Your task to perform on an android device: Go to network settings Image 0: 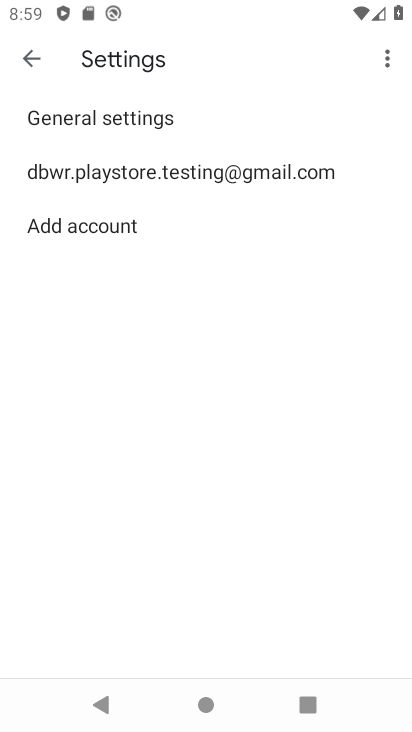
Step 0: press home button
Your task to perform on an android device: Go to network settings Image 1: 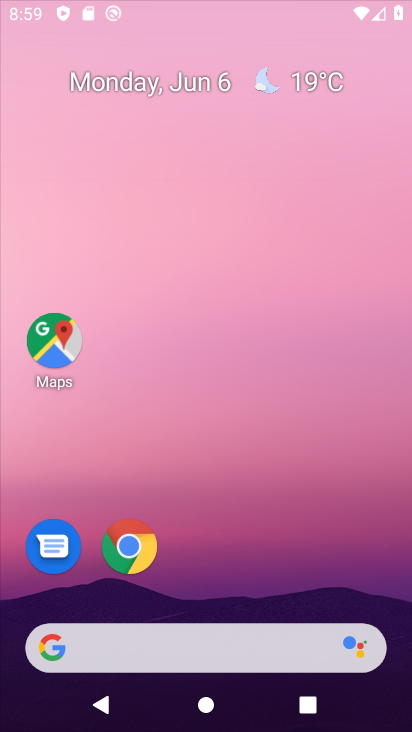
Step 1: drag from (186, 616) to (199, 203)
Your task to perform on an android device: Go to network settings Image 2: 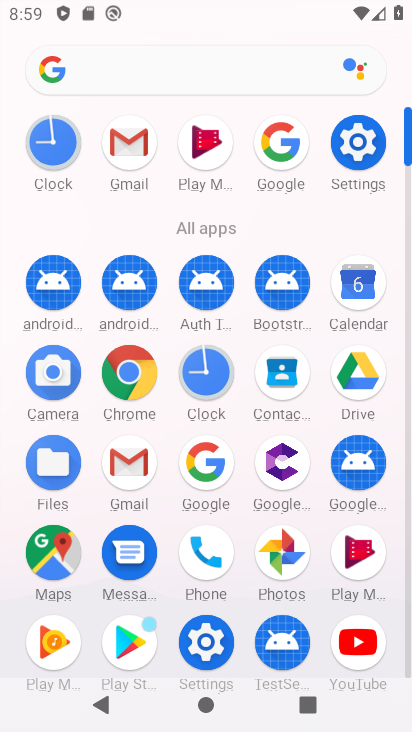
Step 2: click (355, 159)
Your task to perform on an android device: Go to network settings Image 3: 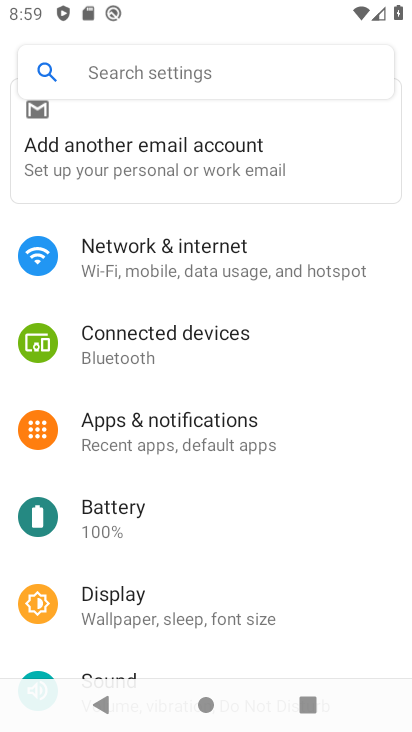
Step 3: click (212, 238)
Your task to perform on an android device: Go to network settings Image 4: 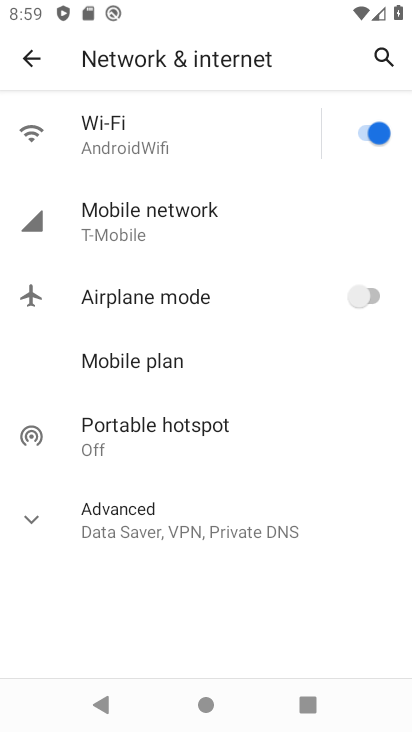
Step 4: click (194, 230)
Your task to perform on an android device: Go to network settings Image 5: 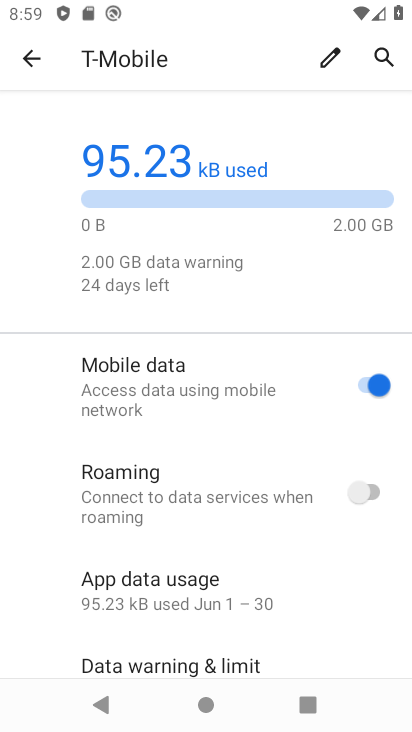
Step 5: drag from (290, 615) to (305, 213)
Your task to perform on an android device: Go to network settings Image 6: 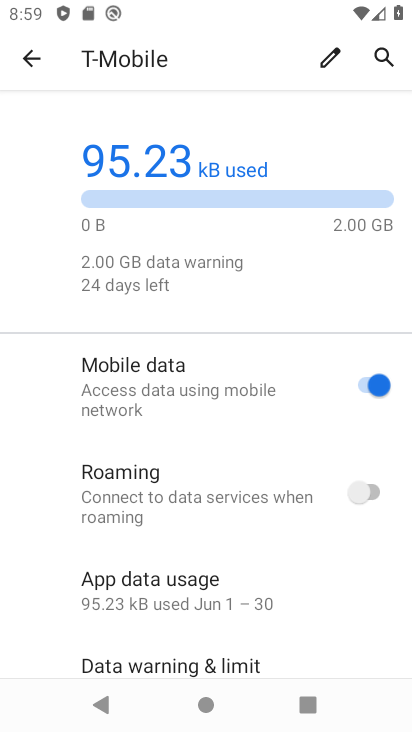
Step 6: drag from (200, 626) to (223, 273)
Your task to perform on an android device: Go to network settings Image 7: 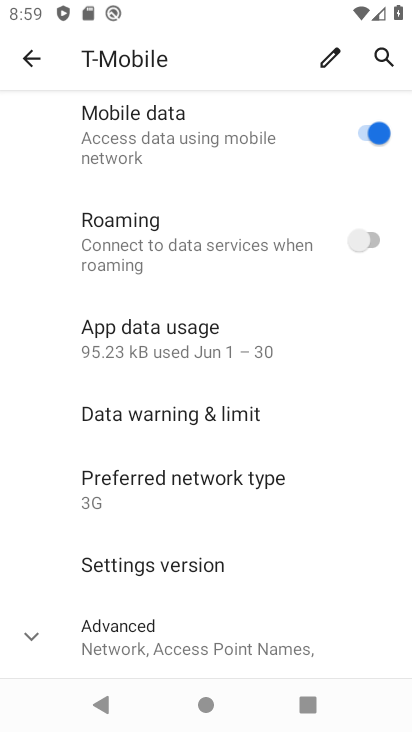
Step 7: click (170, 645)
Your task to perform on an android device: Go to network settings Image 8: 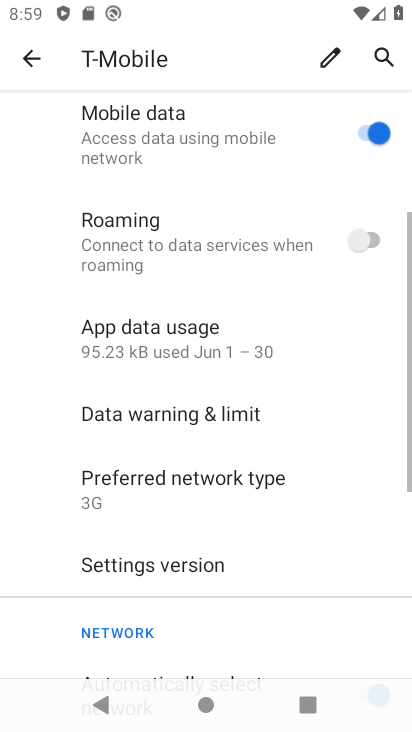
Step 8: task complete